Your task to perform on an android device: Open Google Maps Image 0: 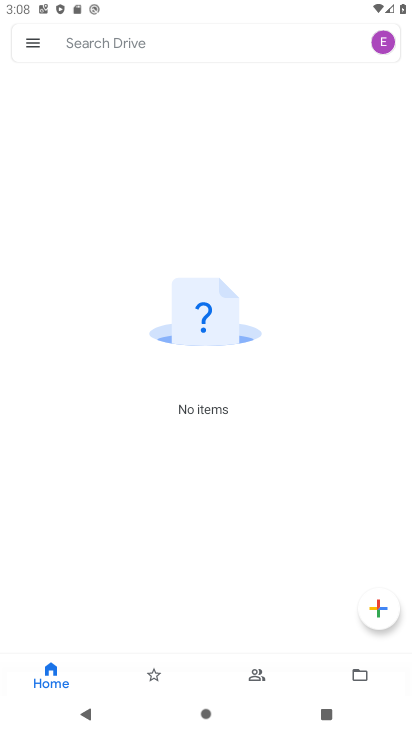
Step 0: press home button
Your task to perform on an android device: Open Google Maps Image 1: 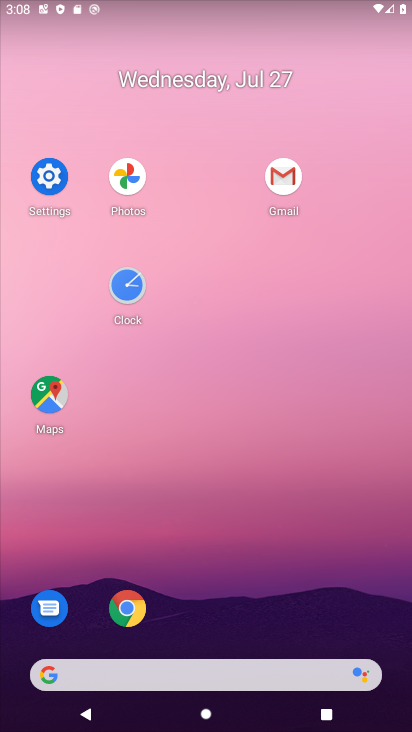
Step 1: click (38, 403)
Your task to perform on an android device: Open Google Maps Image 2: 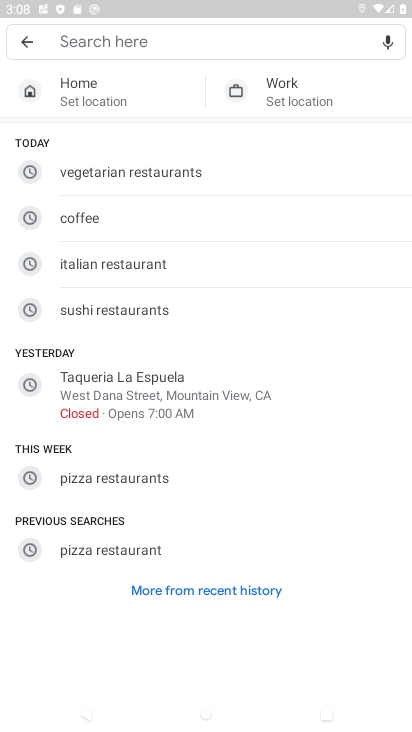
Step 2: task complete